Your task to perform on an android device: find snoozed emails in the gmail app Image 0: 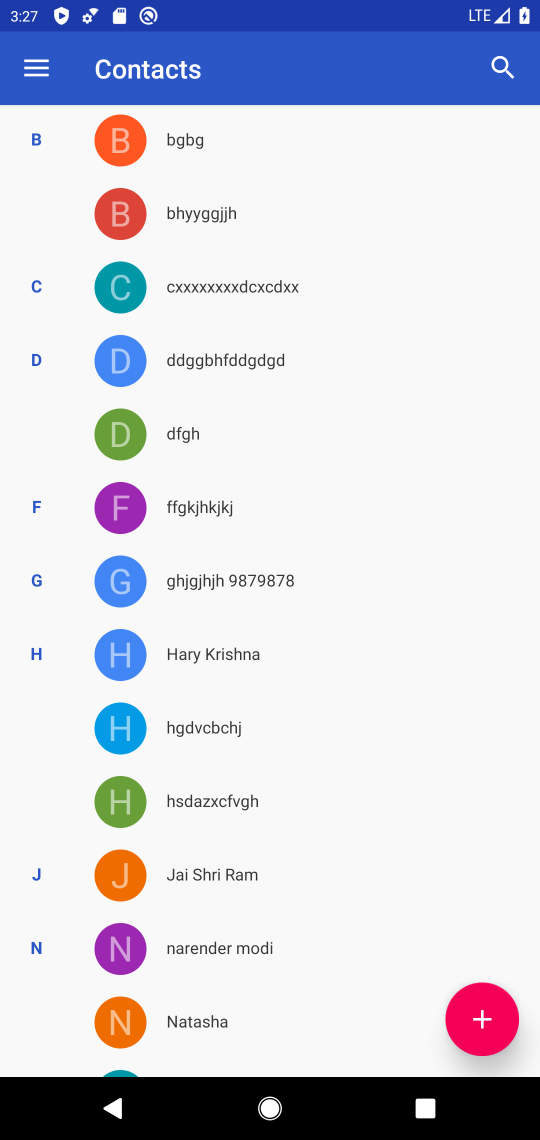
Step 0: press home button
Your task to perform on an android device: find snoozed emails in the gmail app Image 1: 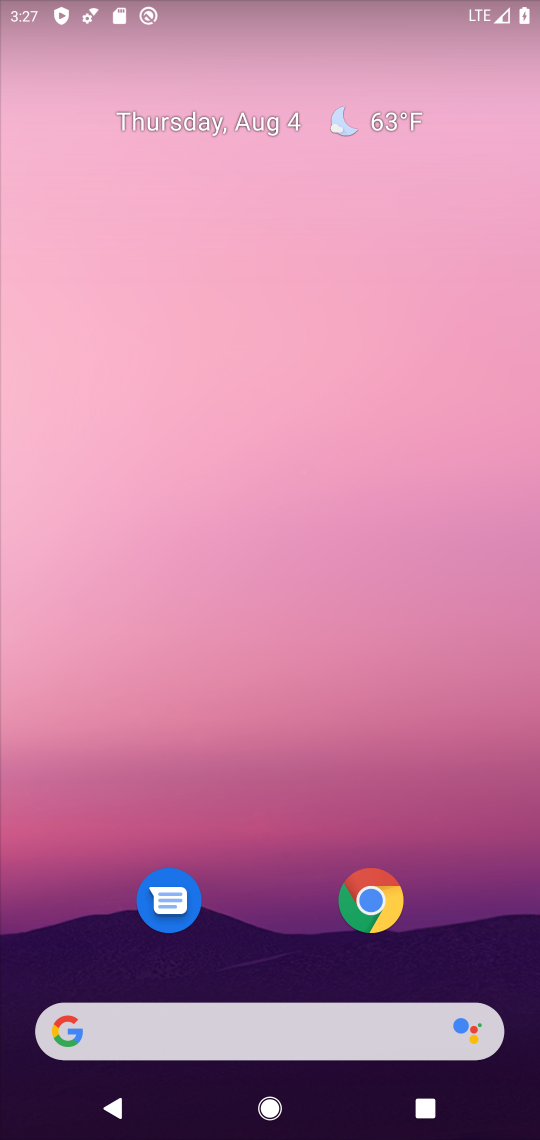
Step 1: drag from (520, 926) to (281, 150)
Your task to perform on an android device: find snoozed emails in the gmail app Image 2: 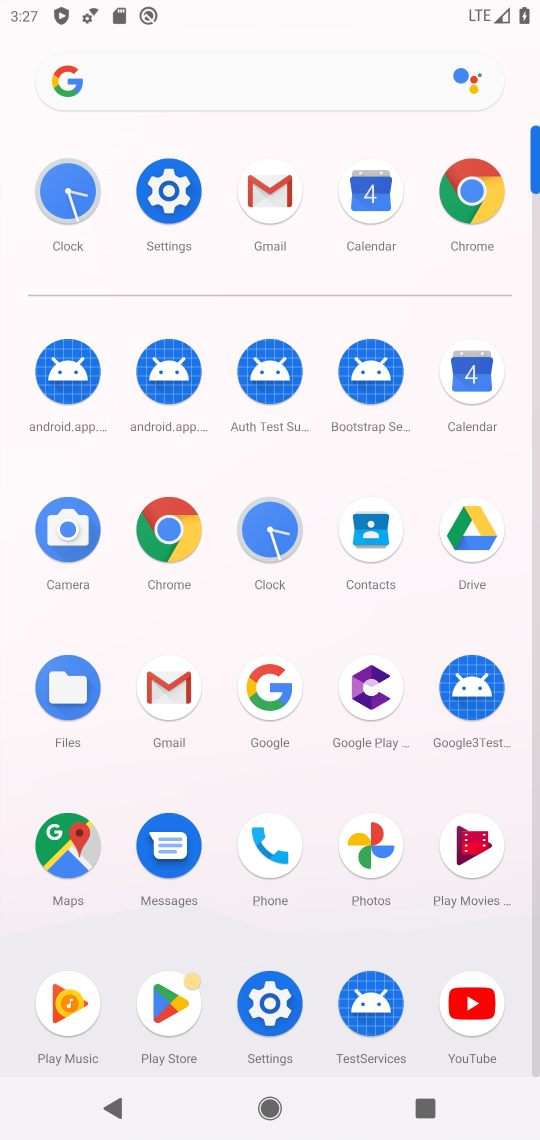
Step 2: click (263, 191)
Your task to perform on an android device: find snoozed emails in the gmail app Image 3: 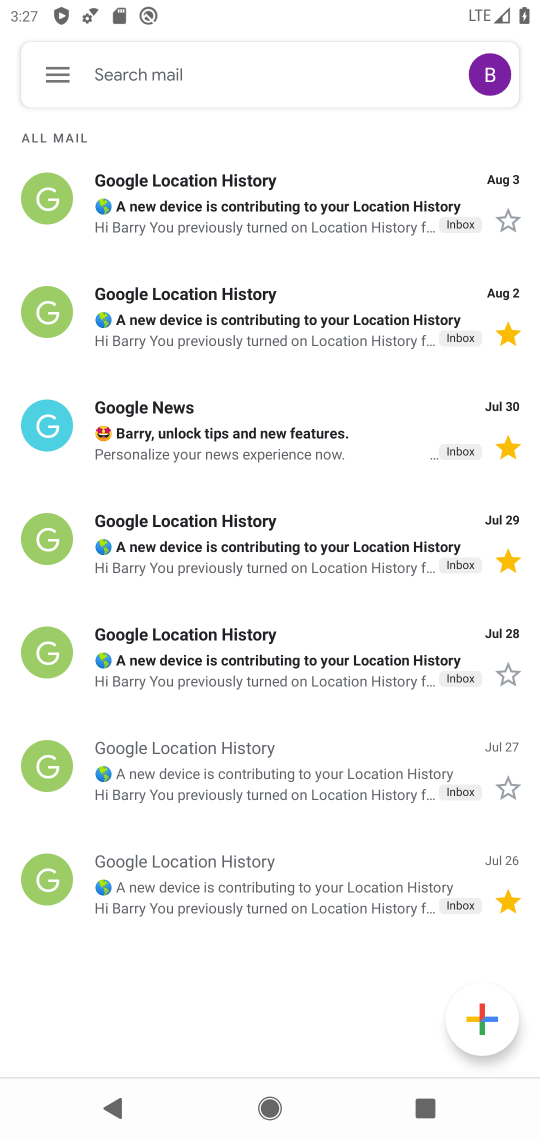
Step 3: click (56, 77)
Your task to perform on an android device: find snoozed emails in the gmail app Image 4: 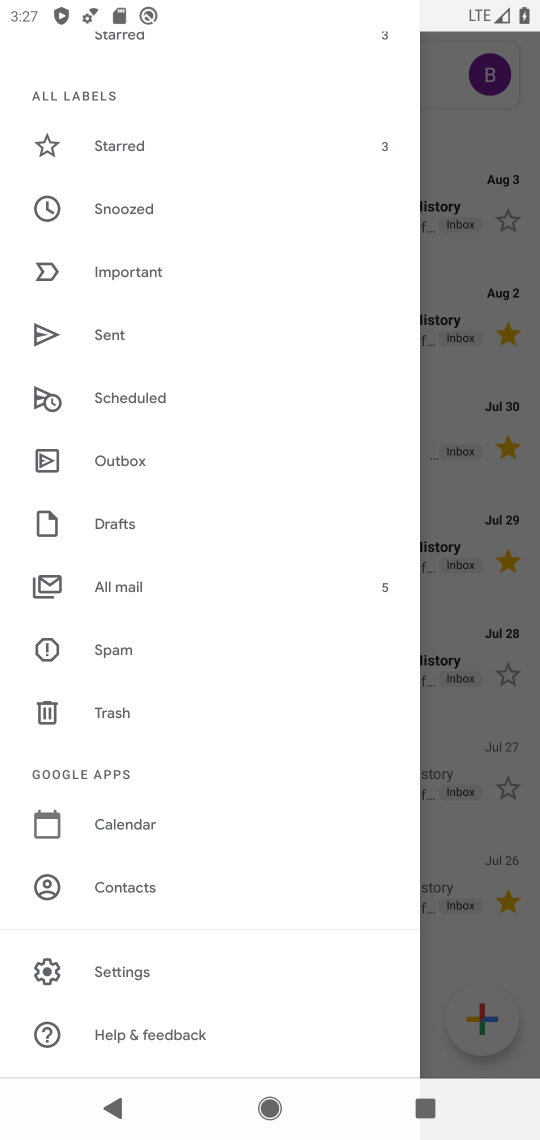
Step 4: click (127, 207)
Your task to perform on an android device: find snoozed emails in the gmail app Image 5: 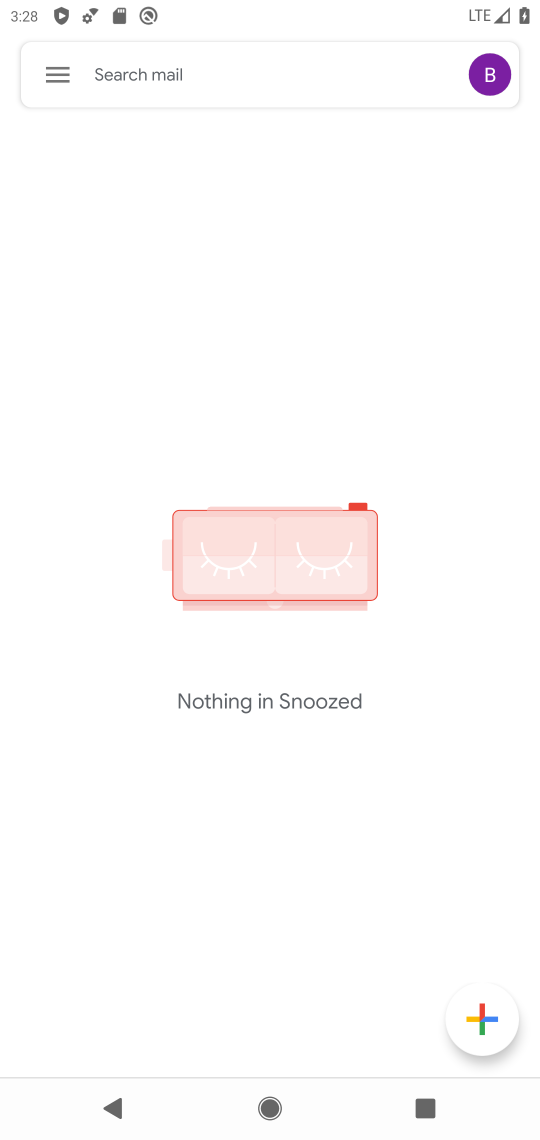
Step 5: task complete